Your task to perform on an android device: When is my next appointment? Image 0: 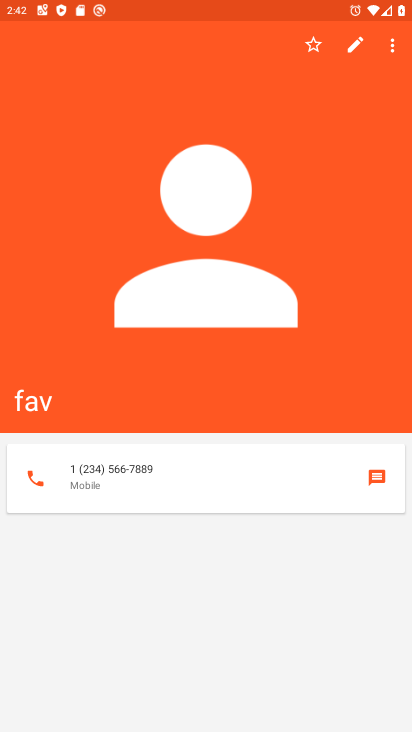
Step 0: press home button
Your task to perform on an android device: When is my next appointment? Image 1: 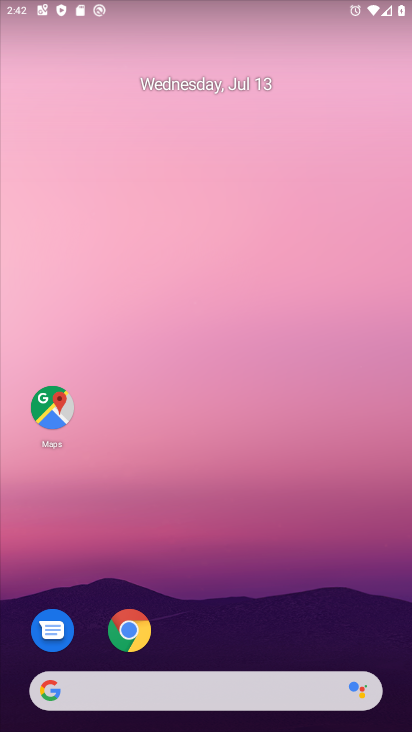
Step 1: drag from (340, 598) to (351, 25)
Your task to perform on an android device: When is my next appointment? Image 2: 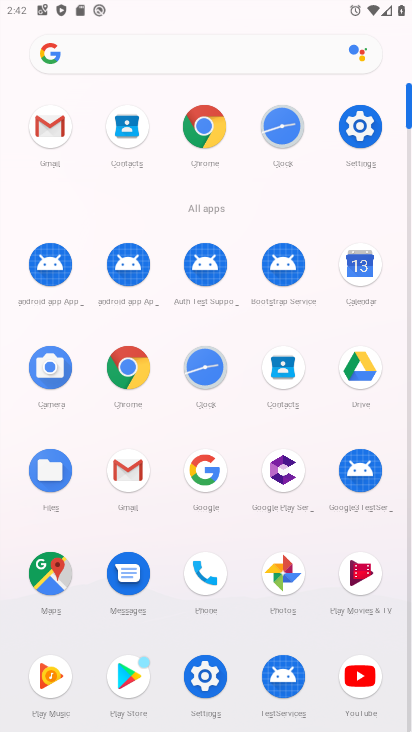
Step 2: click (355, 279)
Your task to perform on an android device: When is my next appointment? Image 3: 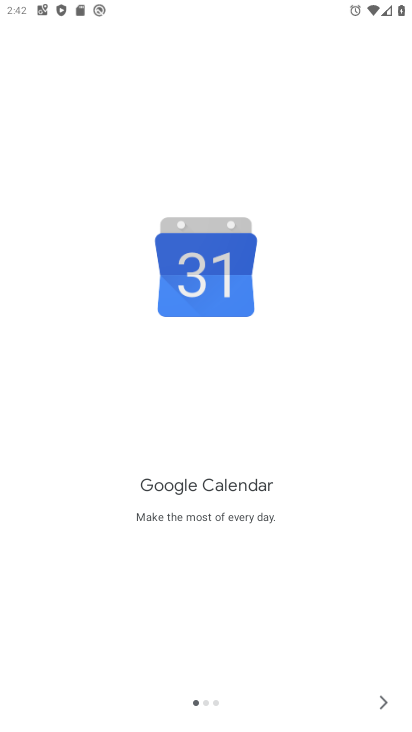
Step 3: click (380, 711)
Your task to perform on an android device: When is my next appointment? Image 4: 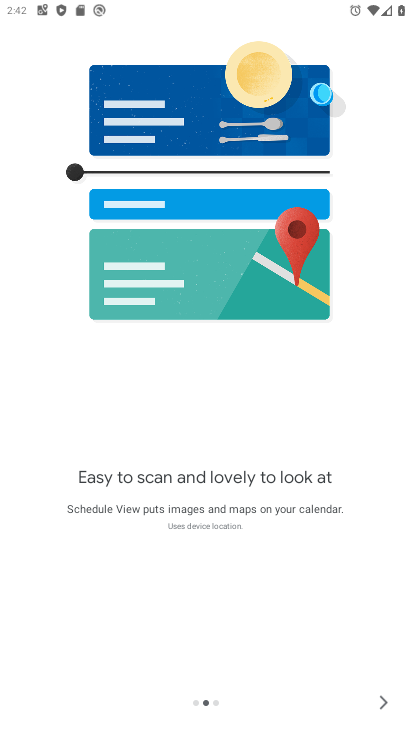
Step 4: click (380, 711)
Your task to perform on an android device: When is my next appointment? Image 5: 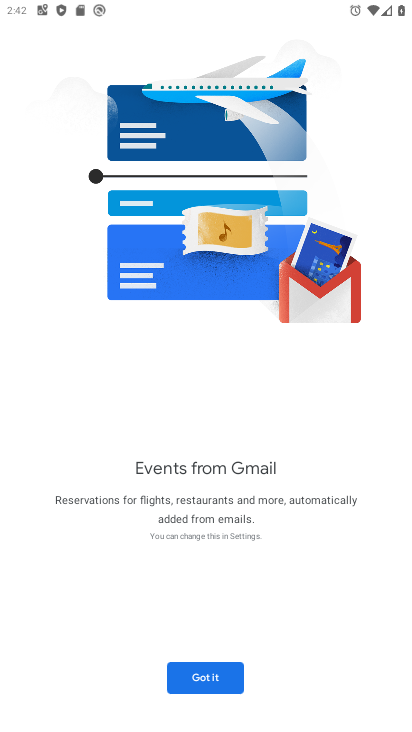
Step 5: click (222, 678)
Your task to perform on an android device: When is my next appointment? Image 6: 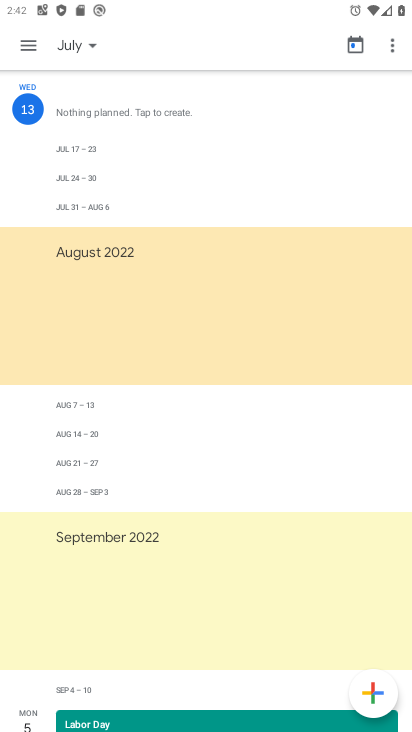
Step 6: click (95, 48)
Your task to perform on an android device: When is my next appointment? Image 7: 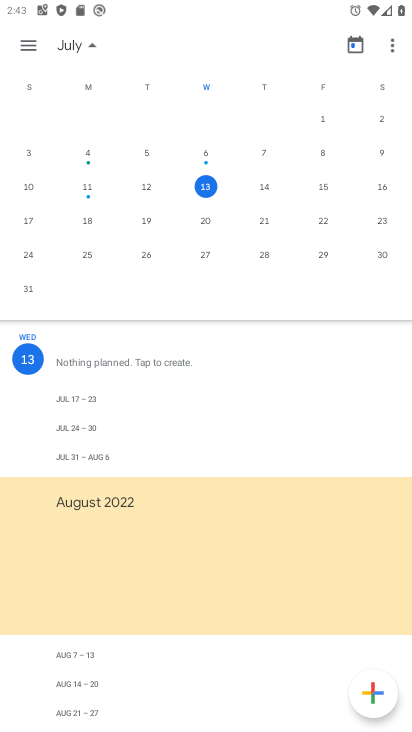
Step 7: task complete